Your task to perform on an android device: turn off notifications settings in the gmail app Image 0: 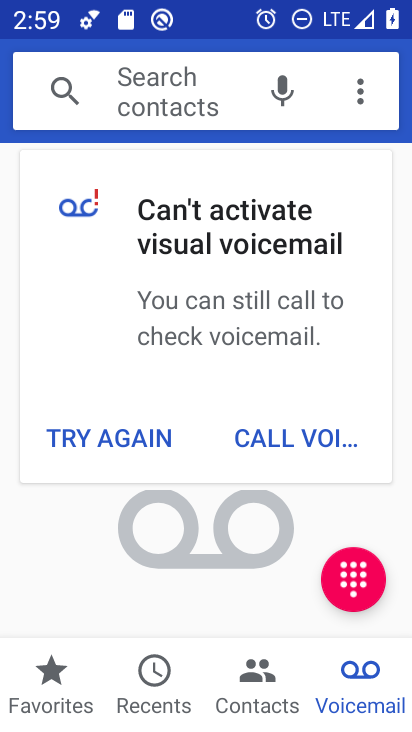
Step 0: press home button
Your task to perform on an android device: turn off notifications settings in the gmail app Image 1: 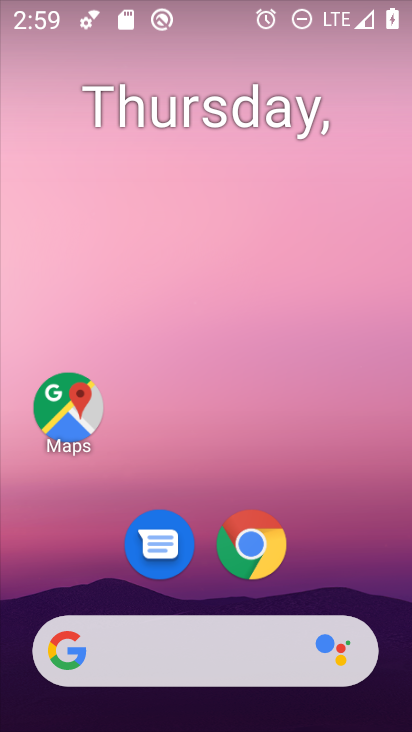
Step 1: drag from (324, 594) to (326, 463)
Your task to perform on an android device: turn off notifications settings in the gmail app Image 2: 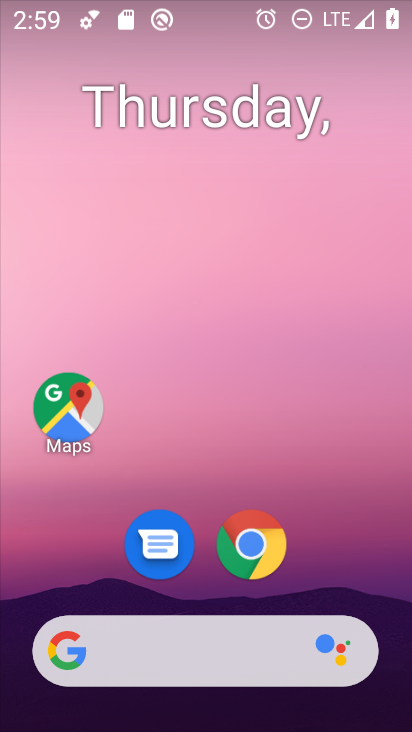
Step 2: drag from (327, 584) to (344, 344)
Your task to perform on an android device: turn off notifications settings in the gmail app Image 3: 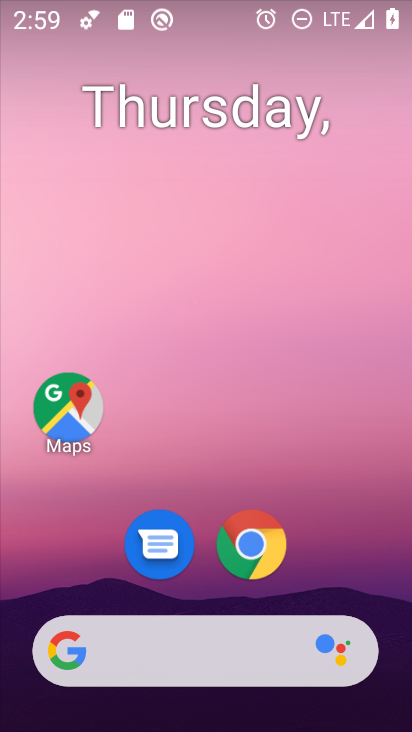
Step 3: drag from (321, 594) to (348, 311)
Your task to perform on an android device: turn off notifications settings in the gmail app Image 4: 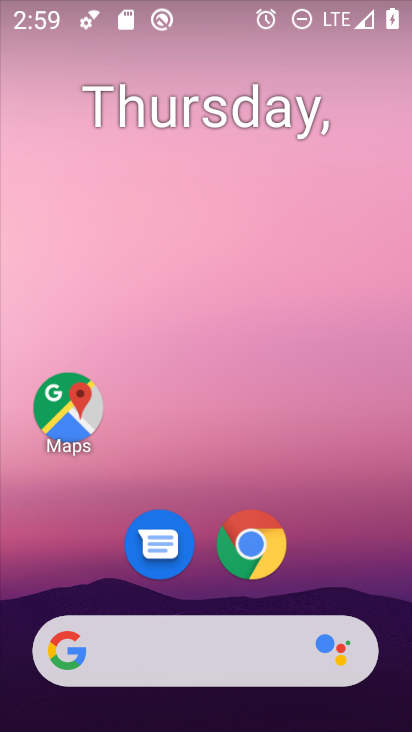
Step 4: drag from (311, 595) to (331, 353)
Your task to perform on an android device: turn off notifications settings in the gmail app Image 5: 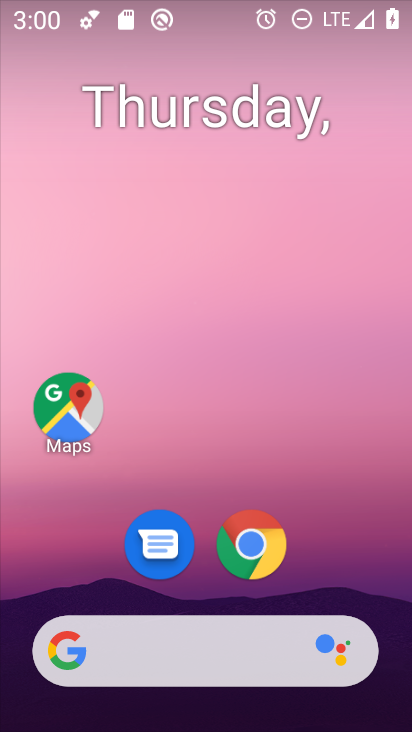
Step 5: drag from (313, 602) to (360, 230)
Your task to perform on an android device: turn off notifications settings in the gmail app Image 6: 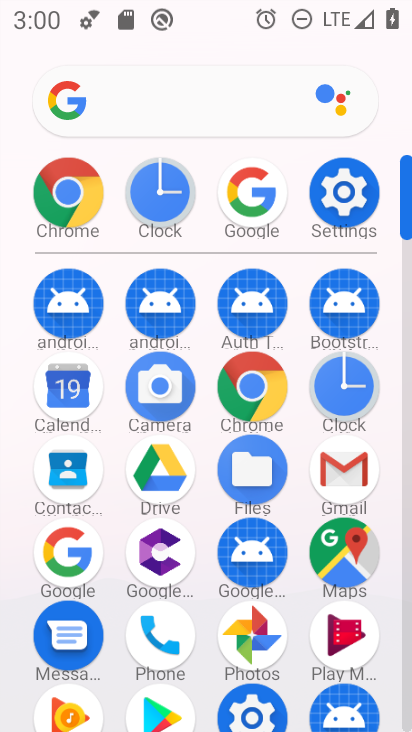
Step 6: click (350, 209)
Your task to perform on an android device: turn off notifications settings in the gmail app Image 7: 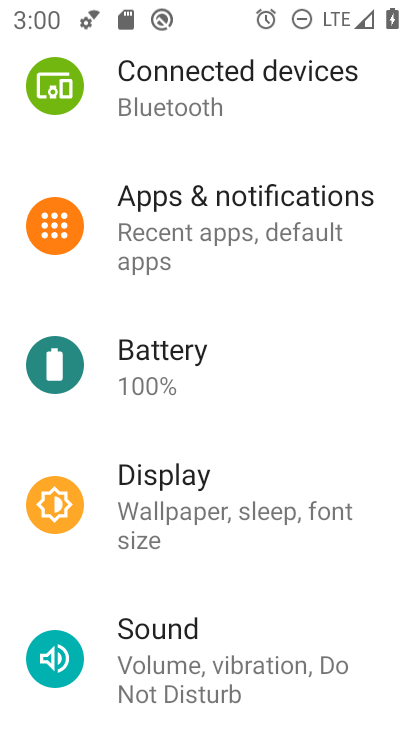
Step 7: click (285, 228)
Your task to perform on an android device: turn off notifications settings in the gmail app Image 8: 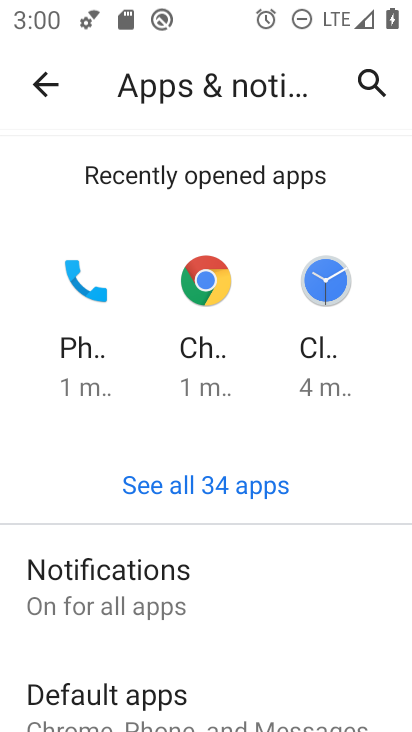
Step 8: click (143, 567)
Your task to perform on an android device: turn off notifications settings in the gmail app Image 9: 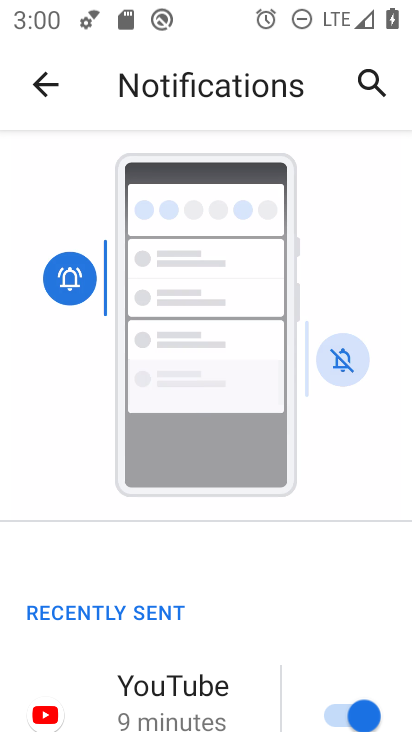
Step 9: task complete